Your task to perform on an android device: turn on the 12-hour format for clock Image 0: 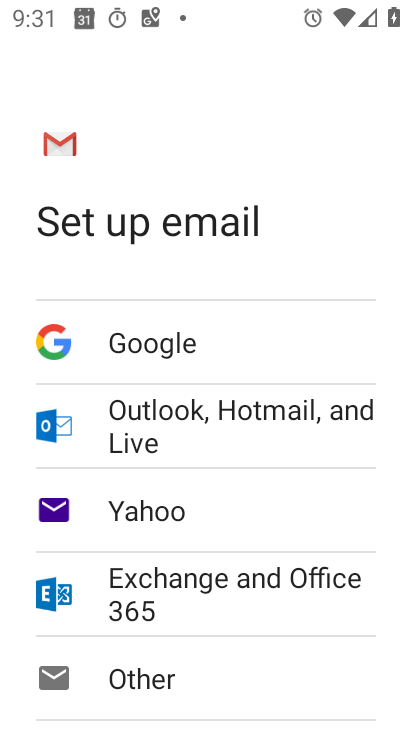
Step 0: press back button
Your task to perform on an android device: turn on the 12-hour format for clock Image 1: 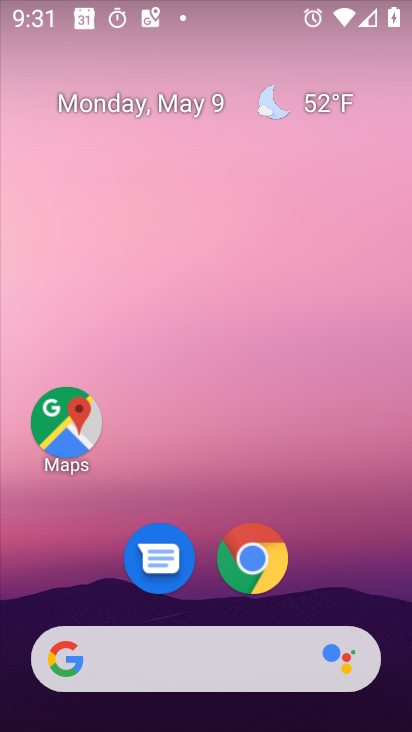
Step 1: drag from (189, 600) to (292, 47)
Your task to perform on an android device: turn on the 12-hour format for clock Image 2: 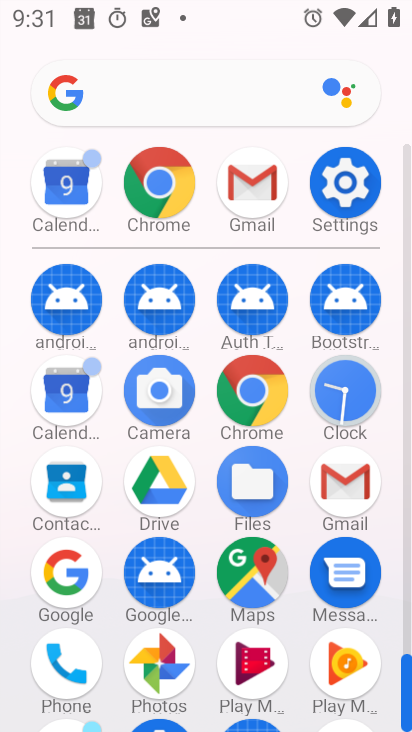
Step 2: click (341, 390)
Your task to perform on an android device: turn on the 12-hour format for clock Image 3: 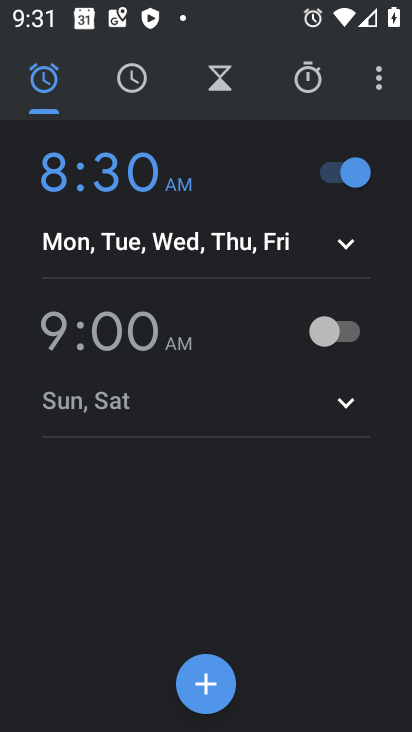
Step 3: click (376, 72)
Your task to perform on an android device: turn on the 12-hour format for clock Image 4: 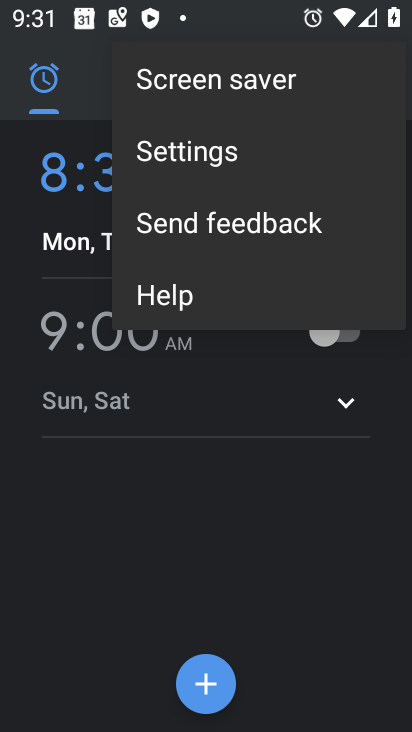
Step 4: click (188, 134)
Your task to perform on an android device: turn on the 12-hour format for clock Image 5: 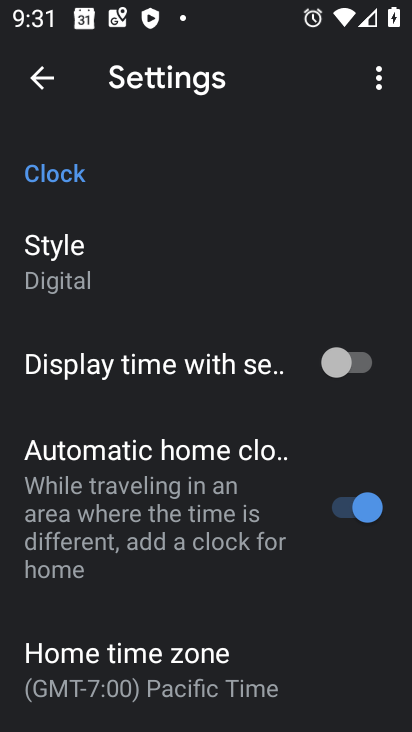
Step 5: drag from (194, 645) to (296, 83)
Your task to perform on an android device: turn on the 12-hour format for clock Image 6: 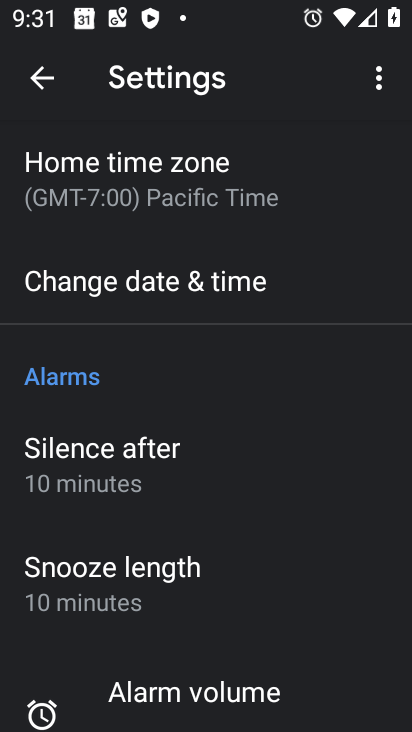
Step 6: click (137, 276)
Your task to perform on an android device: turn on the 12-hour format for clock Image 7: 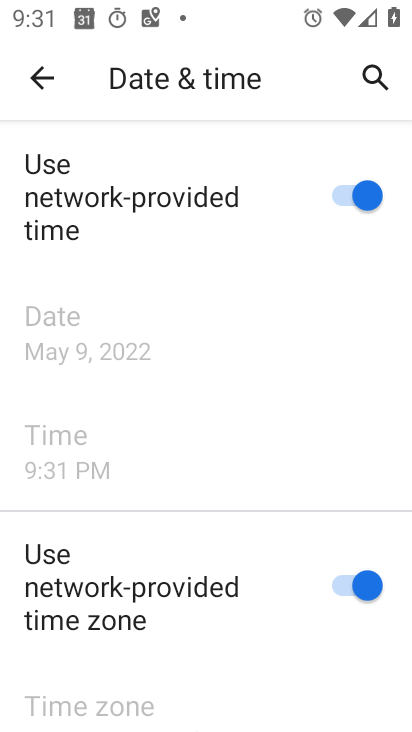
Step 7: task complete